Your task to perform on an android device: find which apps use the phone's location Image 0: 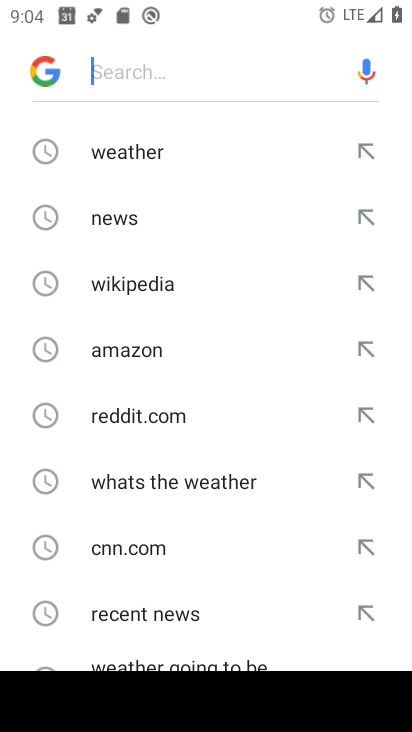
Step 0: press home button
Your task to perform on an android device: find which apps use the phone's location Image 1: 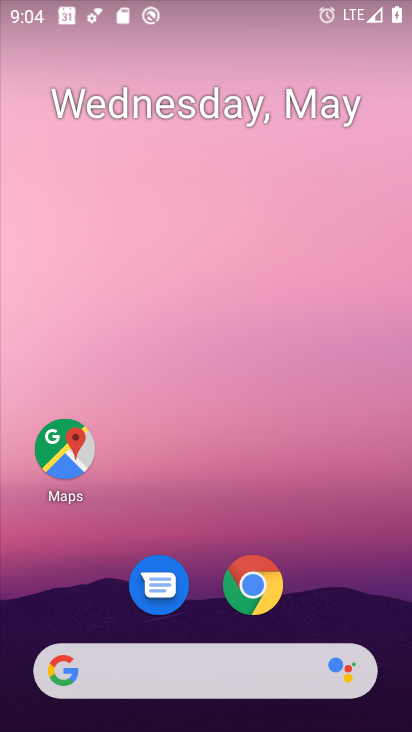
Step 1: drag from (225, 400) to (182, 60)
Your task to perform on an android device: find which apps use the phone's location Image 2: 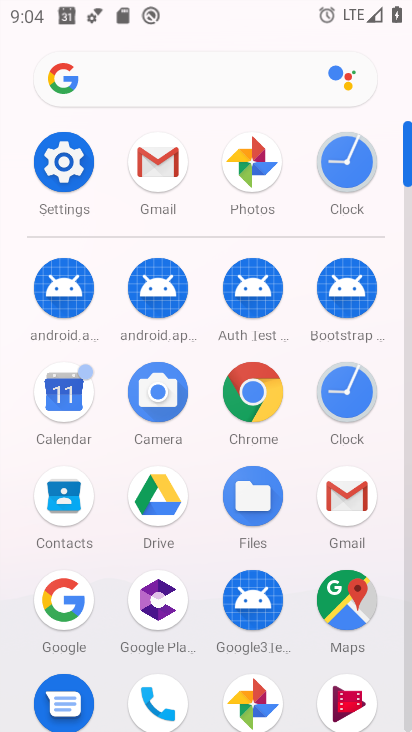
Step 2: click (76, 168)
Your task to perform on an android device: find which apps use the phone's location Image 3: 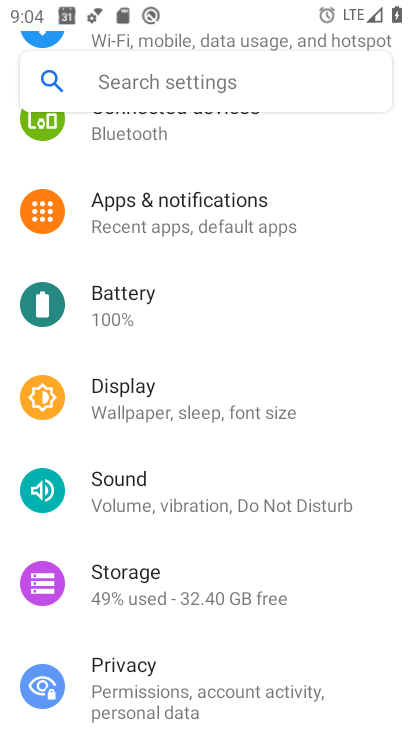
Step 3: drag from (196, 560) to (193, 127)
Your task to perform on an android device: find which apps use the phone's location Image 4: 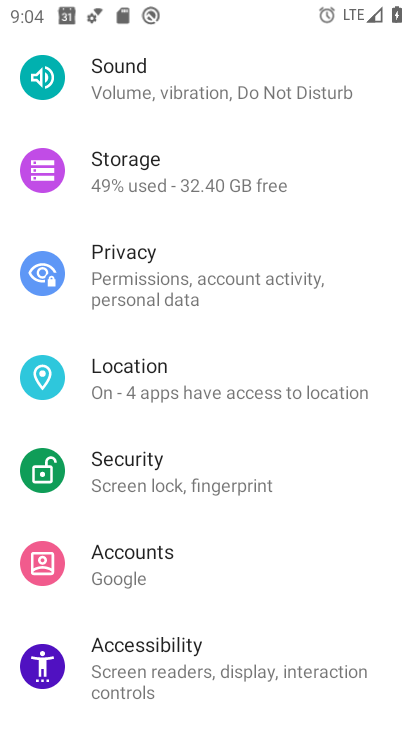
Step 4: click (215, 379)
Your task to perform on an android device: find which apps use the phone's location Image 5: 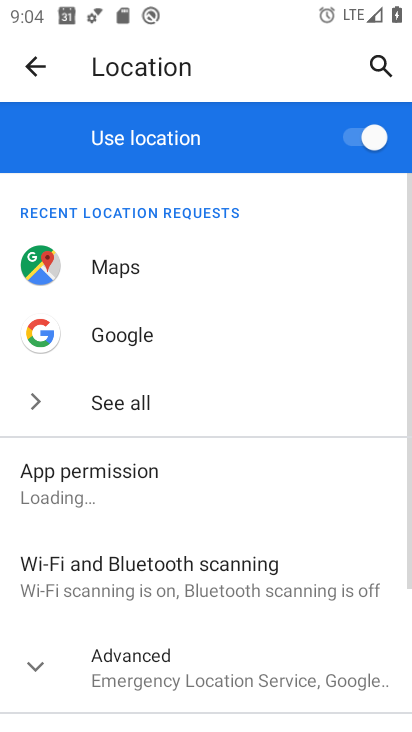
Step 5: click (154, 468)
Your task to perform on an android device: find which apps use the phone's location Image 6: 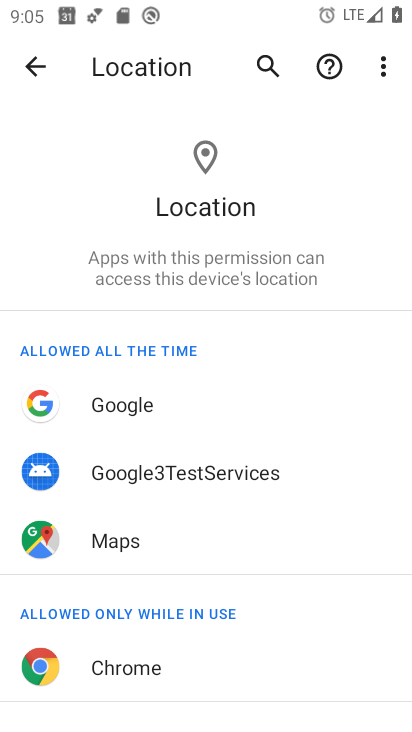
Step 6: task complete